Your task to perform on an android device: change keyboard looks Image 0: 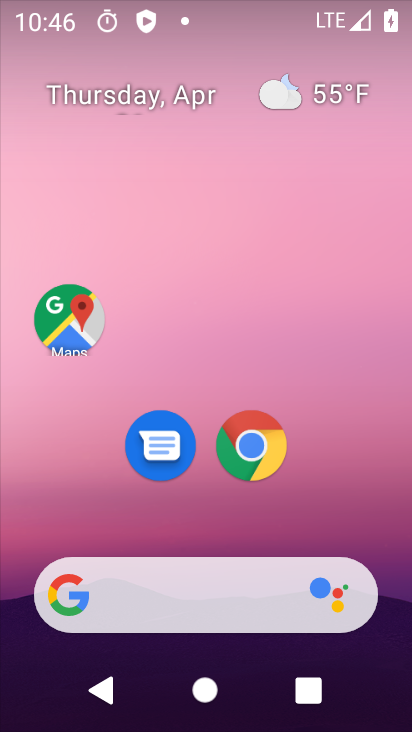
Step 0: drag from (408, 568) to (364, 6)
Your task to perform on an android device: change keyboard looks Image 1: 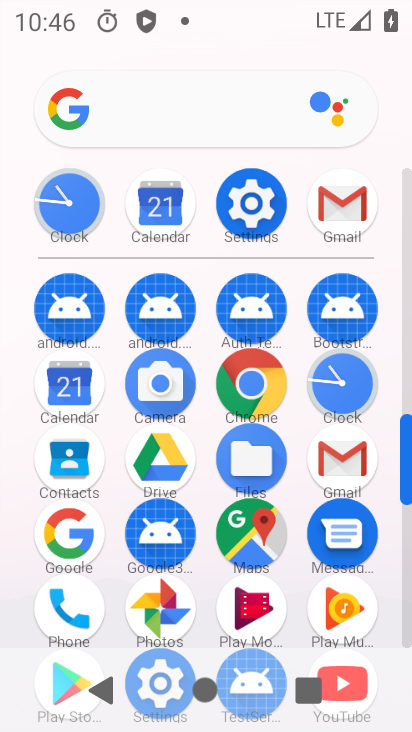
Step 1: click (250, 205)
Your task to perform on an android device: change keyboard looks Image 2: 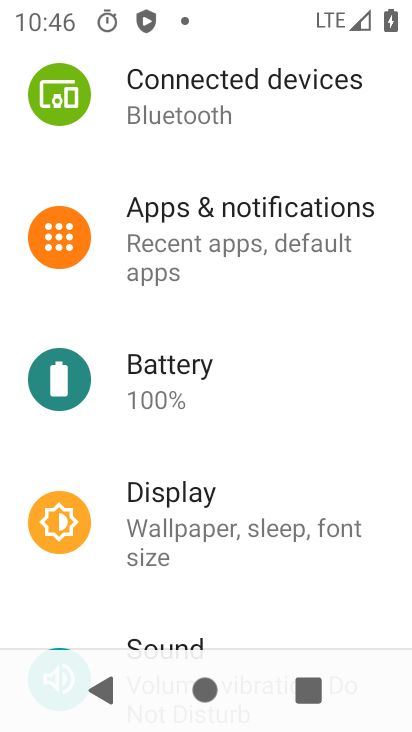
Step 2: drag from (346, 539) to (283, 66)
Your task to perform on an android device: change keyboard looks Image 3: 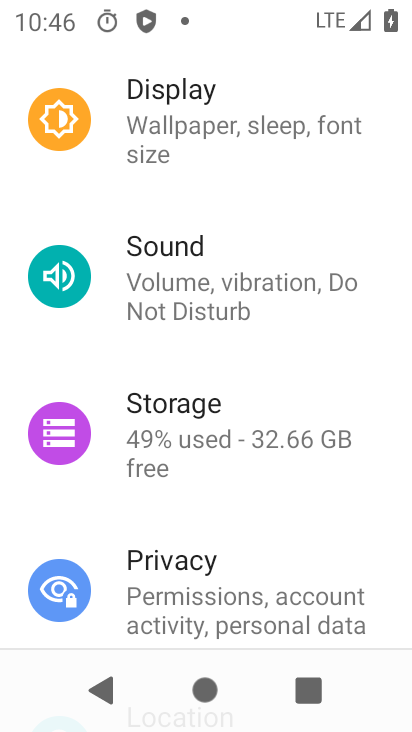
Step 3: drag from (307, 485) to (249, 53)
Your task to perform on an android device: change keyboard looks Image 4: 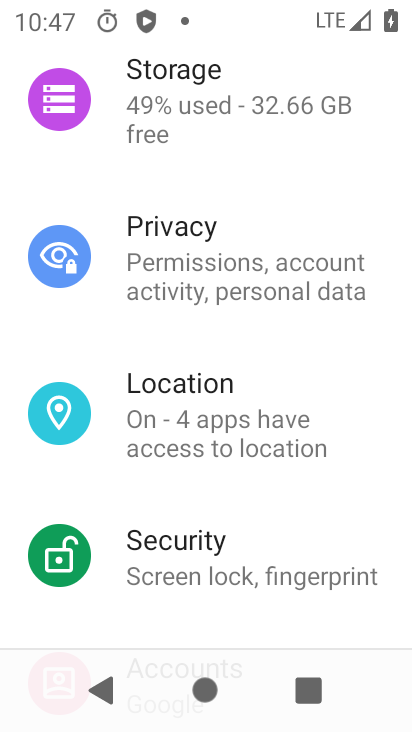
Step 4: drag from (239, 519) to (192, 111)
Your task to perform on an android device: change keyboard looks Image 5: 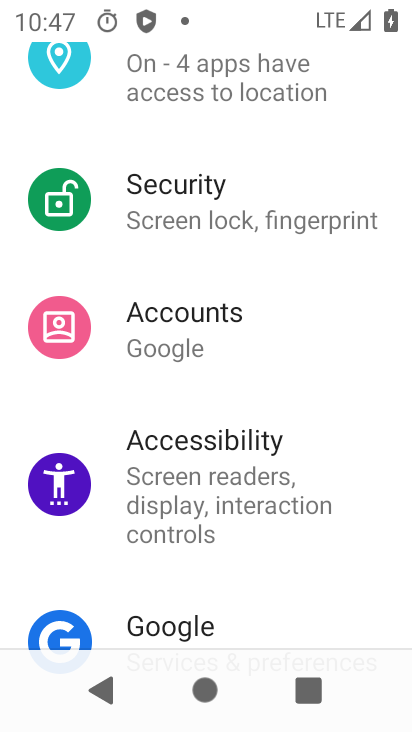
Step 5: drag from (223, 532) to (179, 114)
Your task to perform on an android device: change keyboard looks Image 6: 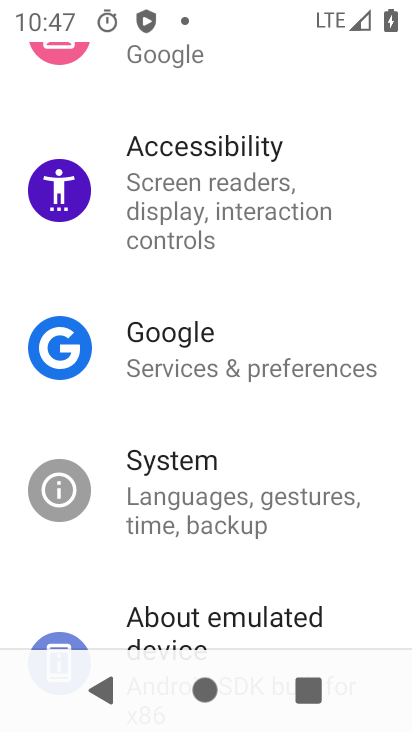
Step 6: click (195, 513)
Your task to perform on an android device: change keyboard looks Image 7: 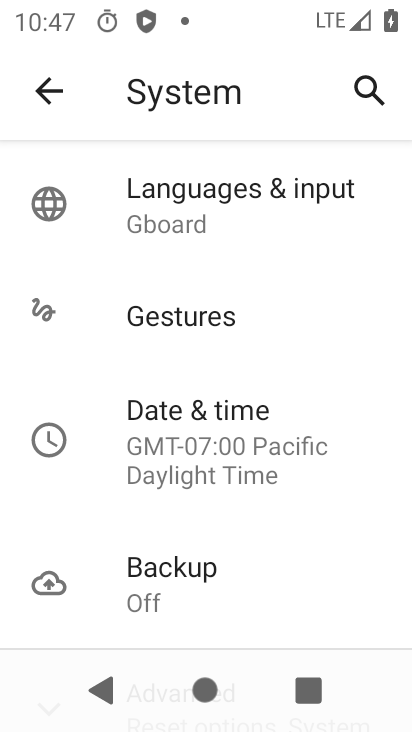
Step 7: click (184, 218)
Your task to perform on an android device: change keyboard looks Image 8: 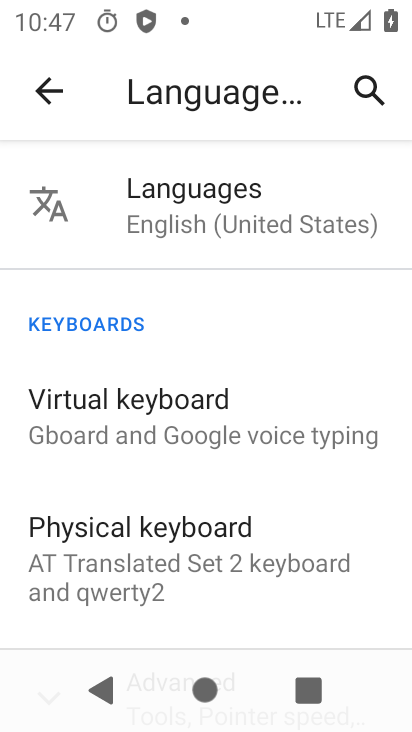
Step 8: click (127, 429)
Your task to perform on an android device: change keyboard looks Image 9: 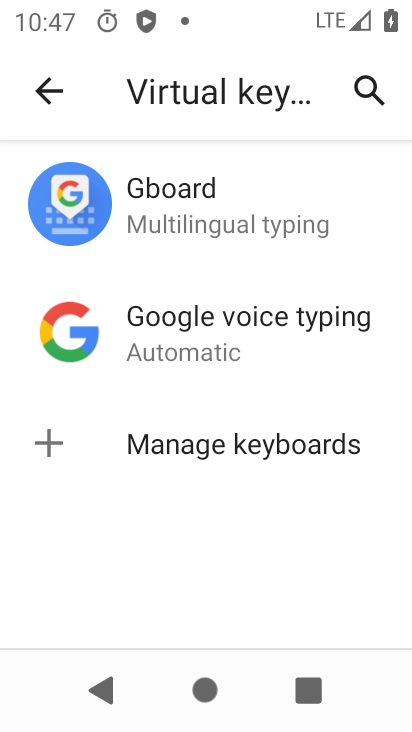
Step 9: click (153, 229)
Your task to perform on an android device: change keyboard looks Image 10: 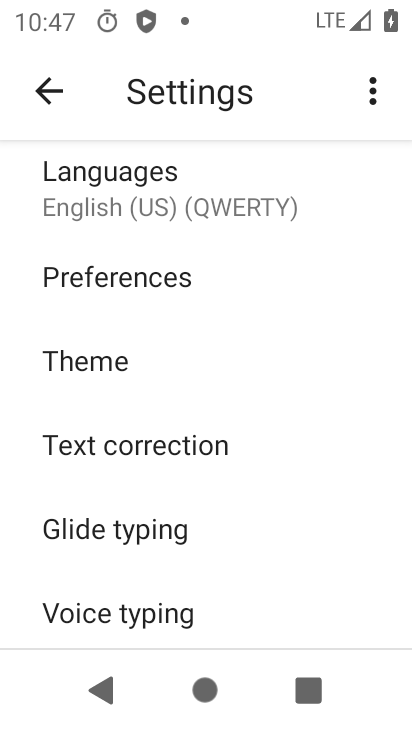
Step 10: click (102, 361)
Your task to perform on an android device: change keyboard looks Image 11: 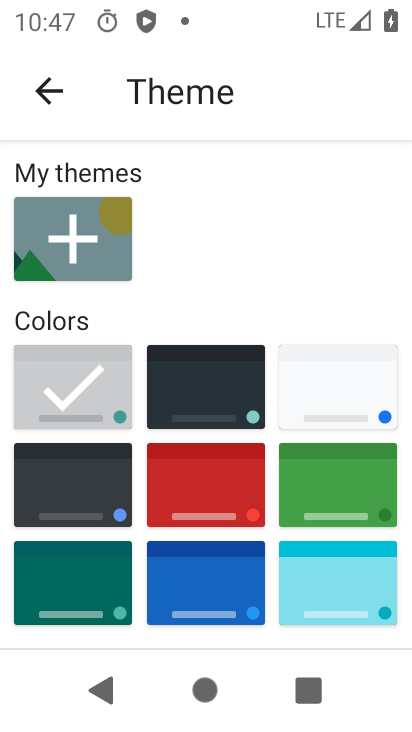
Step 11: click (196, 401)
Your task to perform on an android device: change keyboard looks Image 12: 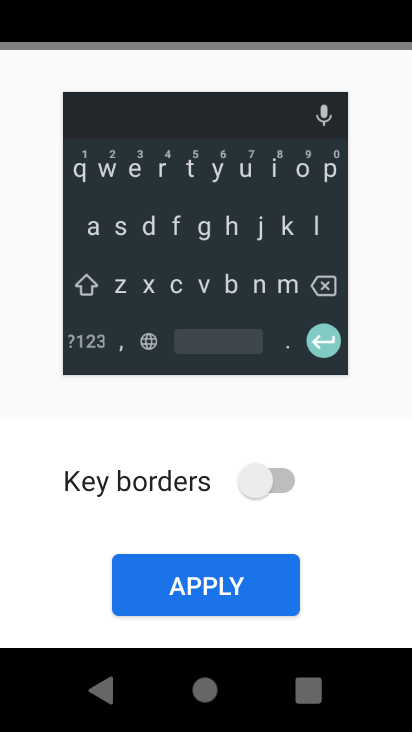
Step 12: click (247, 474)
Your task to perform on an android device: change keyboard looks Image 13: 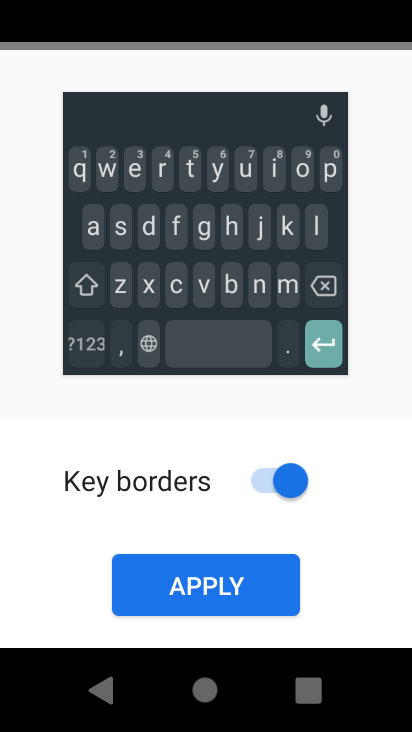
Step 13: click (231, 601)
Your task to perform on an android device: change keyboard looks Image 14: 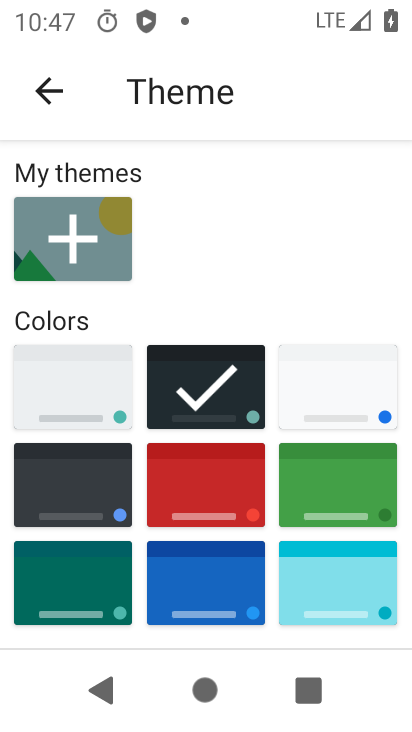
Step 14: task complete